Your task to perform on an android device: all mails in gmail Image 0: 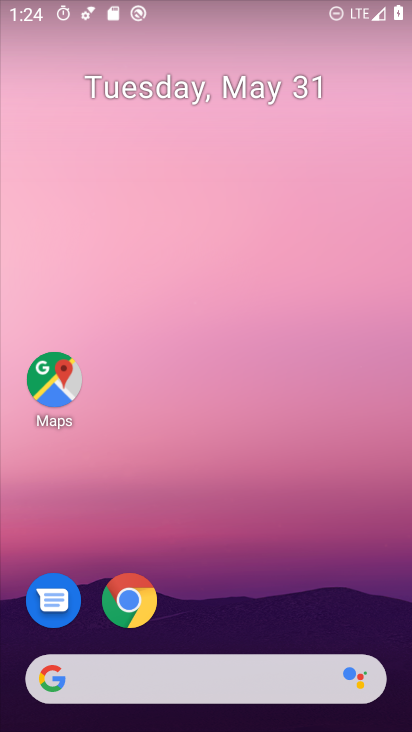
Step 0: click (195, 726)
Your task to perform on an android device: all mails in gmail Image 1: 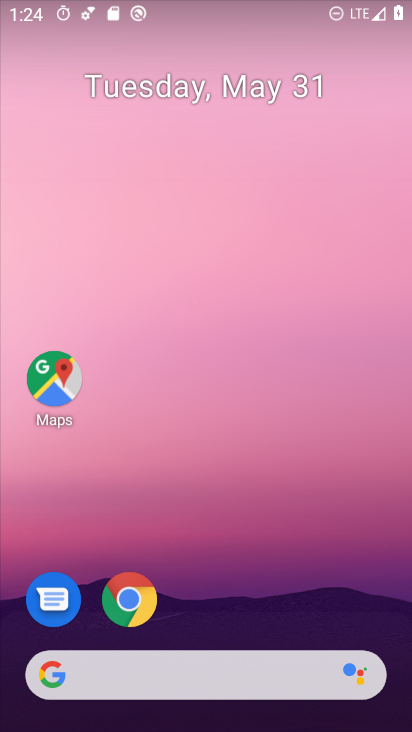
Step 1: drag from (193, 81) to (193, 35)
Your task to perform on an android device: all mails in gmail Image 2: 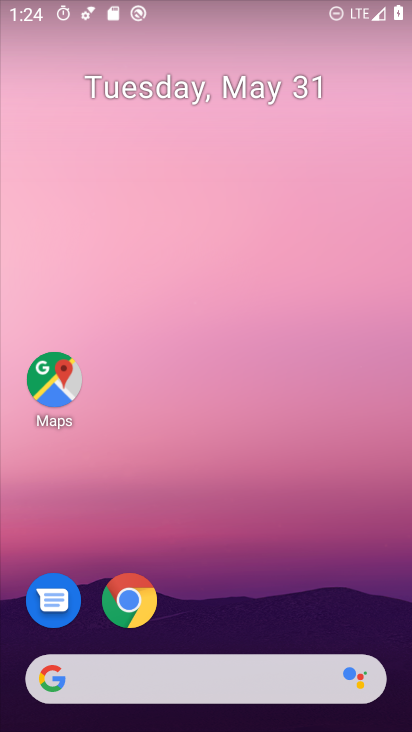
Step 2: drag from (196, 722) to (194, 654)
Your task to perform on an android device: all mails in gmail Image 3: 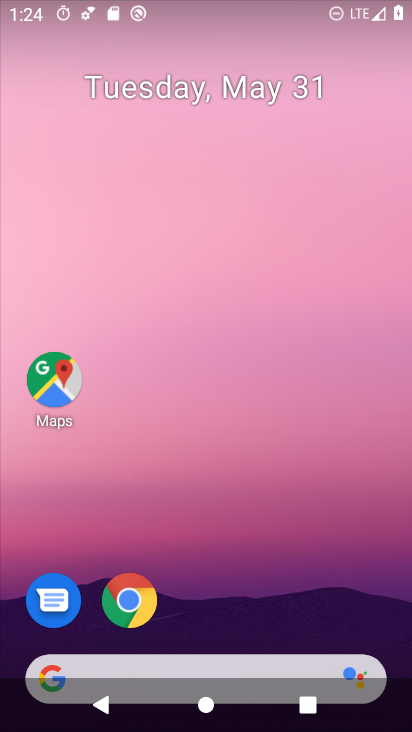
Step 3: click (198, 159)
Your task to perform on an android device: all mails in gmail Image 4: 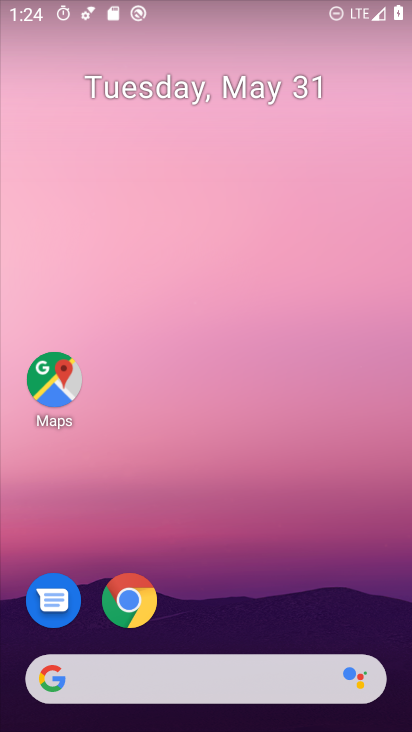
Step 4: drag from (227, 725) to (229, 14)
Your task to perform on an android device: all mails in gmail Image 5: 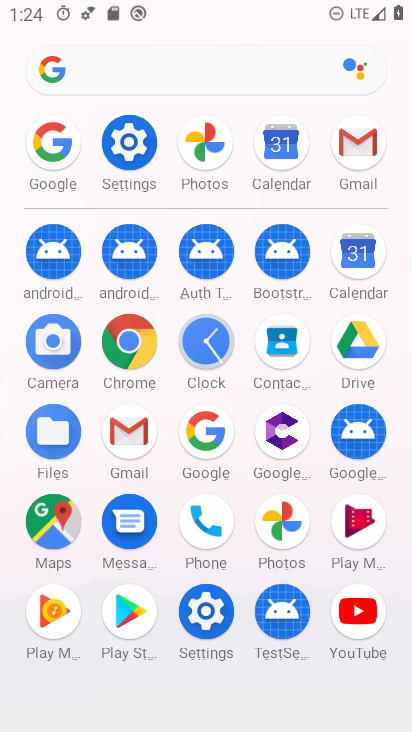
Step 5: click (119, 434)
Your task to perform on an android device: all mails in gmail Image 6: 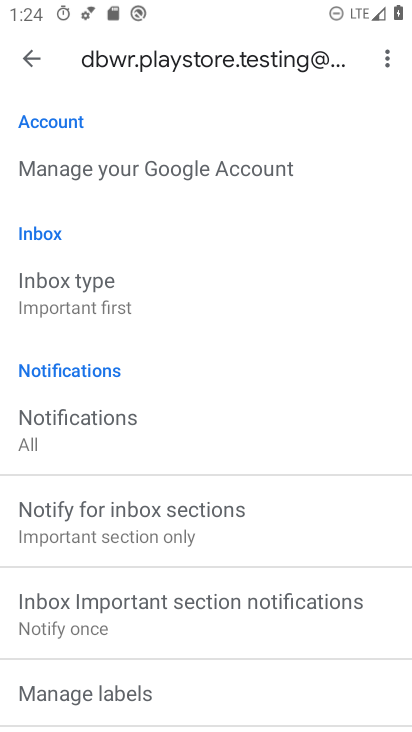
Step 6: click (33, 50)
Your task to perform on an android device: all mails in gmail Image 7: 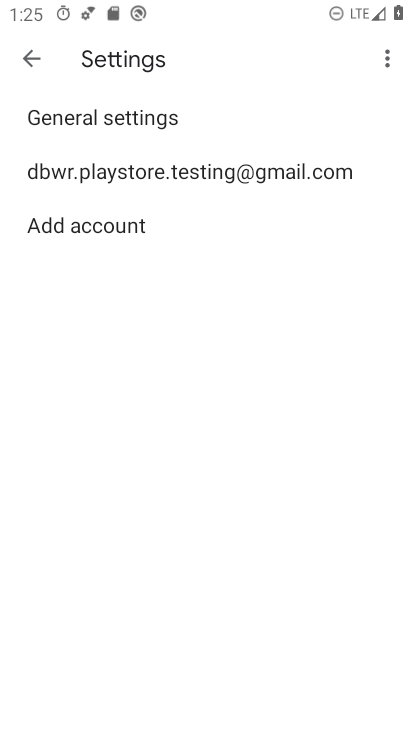
Step 7: click (32, 58)
Your task to perform on an android device: all mails in gmail Image 8: 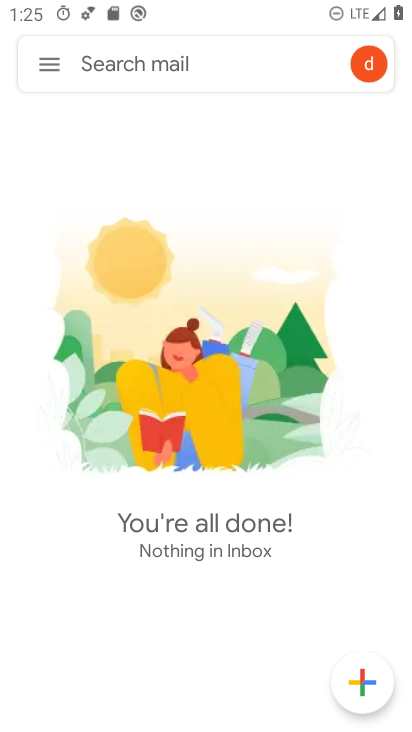
Step 8: click (45, 65)
Your task to perform on an android device: all mails in gmail Image 9: 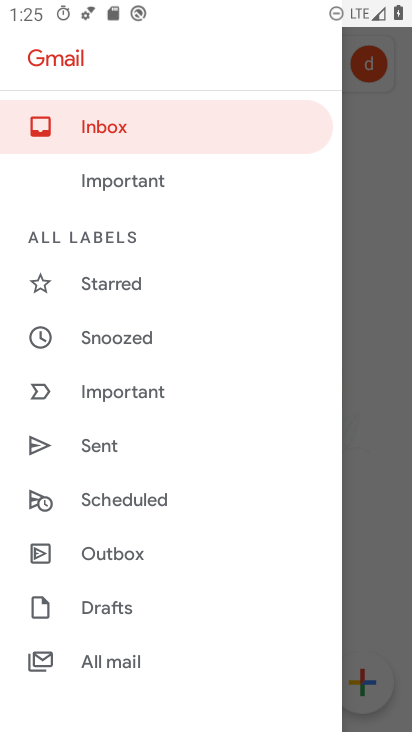
Step 9: click (110, 662)
Your task to perform on an android device: all mails in gmail Image 10: 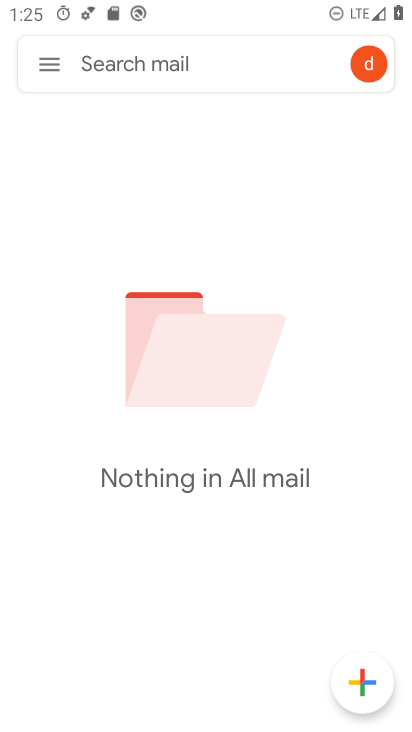
Step 10: task complete